Your task to perform on an android device: set default search engine in the chrome app Image 0: 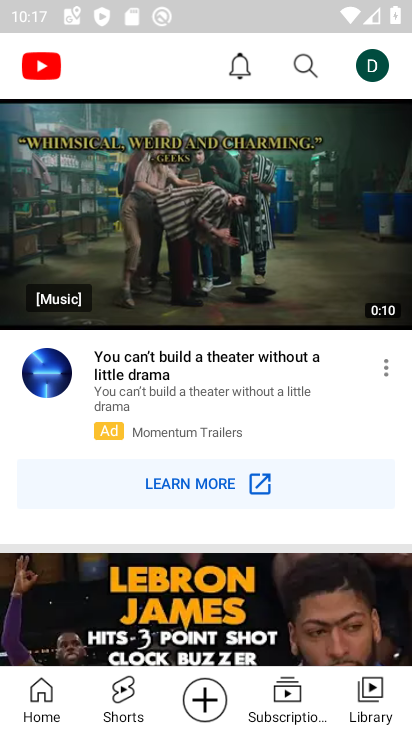
Step 0: press back button
Your task to perform on an android device: set default search engine in the chrome app Image 1: 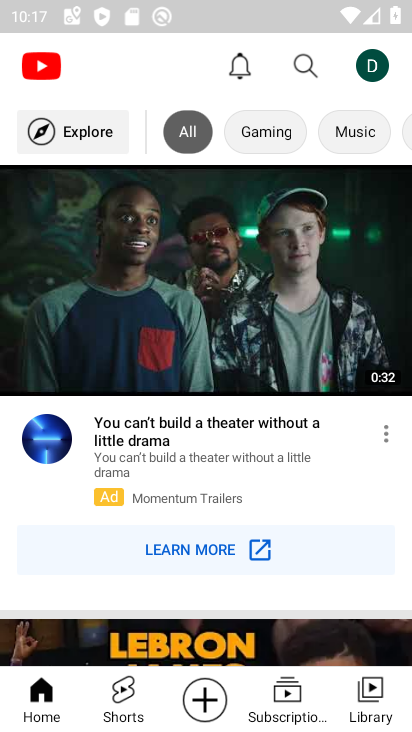
Step 1: press back button
Your task to perform on an android device: set default search engine in the chrome app Image 2: 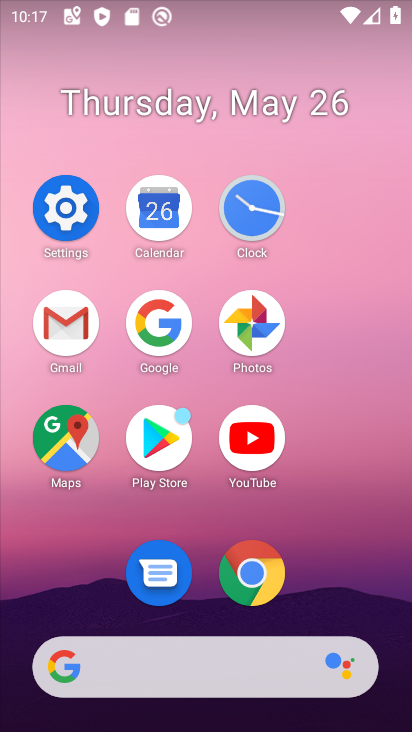
Step 2: click (256, 567)
Your task to perform on an android device: set default search engine in the chrome app Image 3: 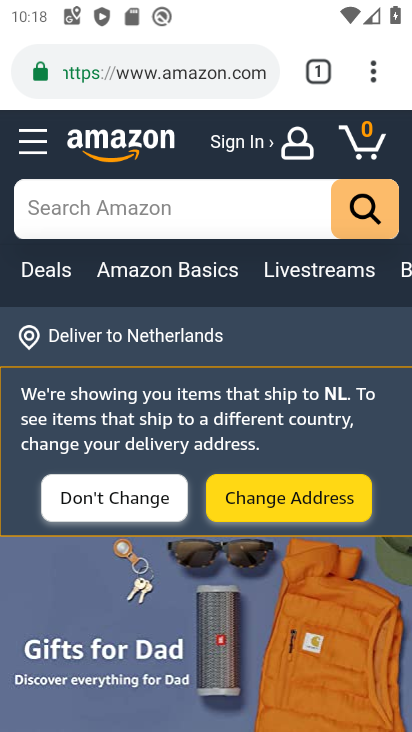
Step 3: click (384, 74)
Your task to perform on an android device: set default search engine in the chrome app Image 4: 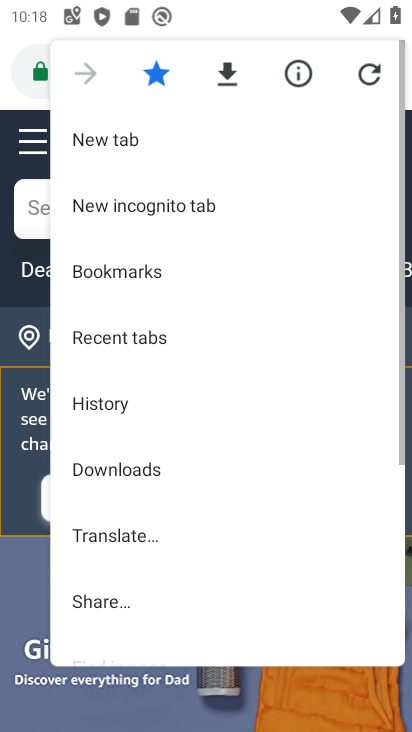
Step 4: drag from (178, 583) to (186, 144)
Your task to perform on an android device: set default search engine in the chrome app Image 5: 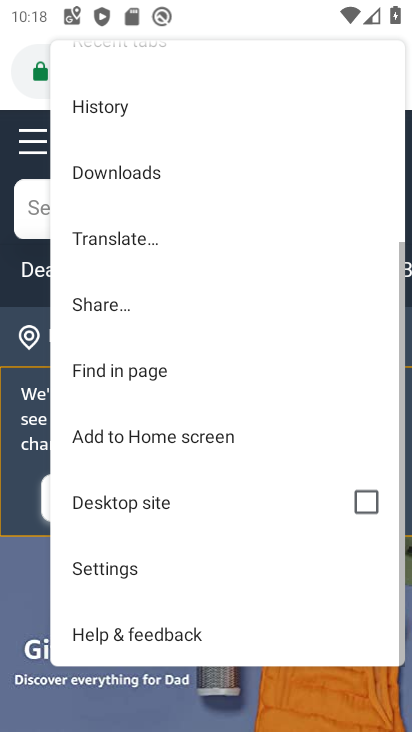
Step 5: click (168, 579)
Your task to perform on an android device: set default search engine in the chrome app Image 6: 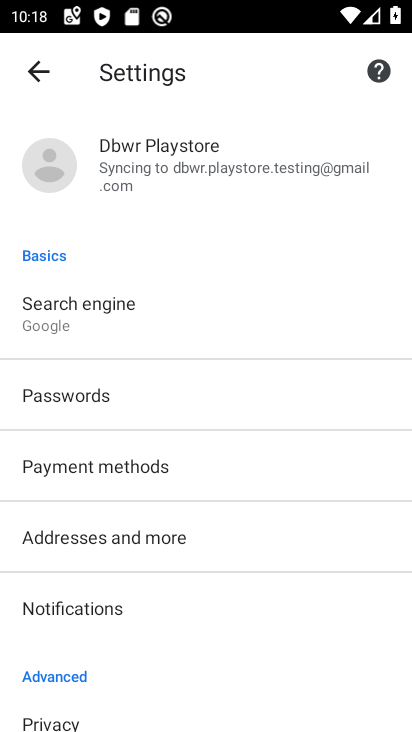
Step 6: click (150, 298)
Your task to perform on an android device: set default search engine in the chrome app Image 7: 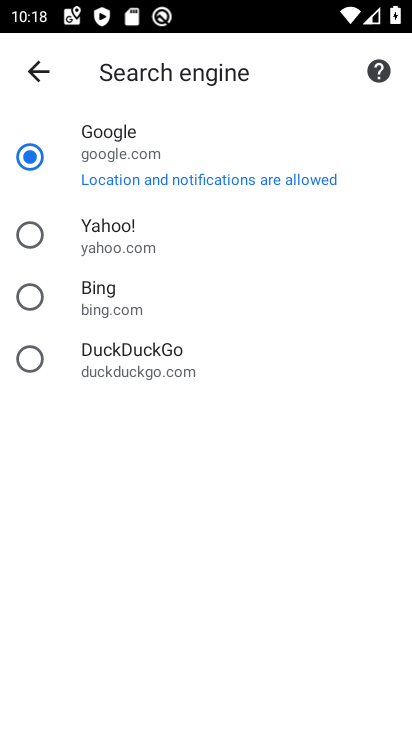
Step 7: task complete